Your task to perform on an android device: Show the shopping cart on amazon.com. Image 0: 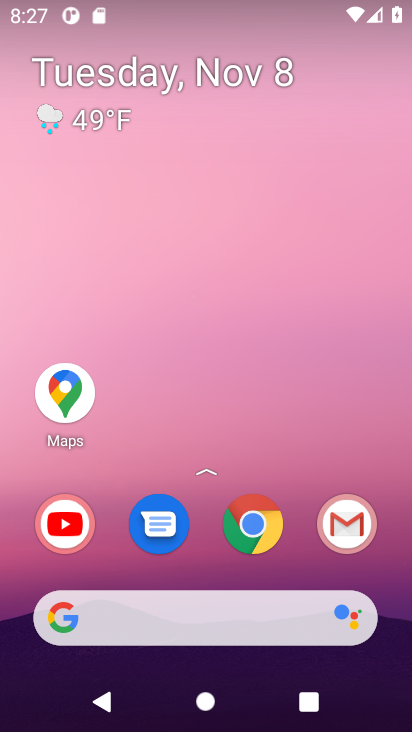
Step 0: click (248, 515)
Your task to perform on an android device: Show the shopping cart on amazon.com. Image 1: 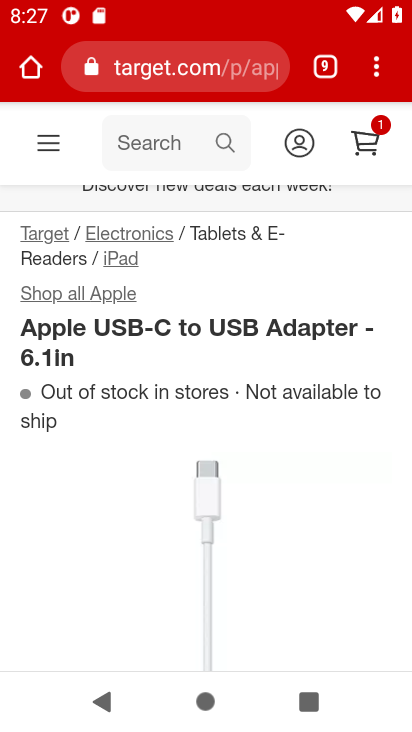
Step 1: click (185, 76)
Your task to perform on an android device: Show the shopping cart on amazon.com. Image 2: 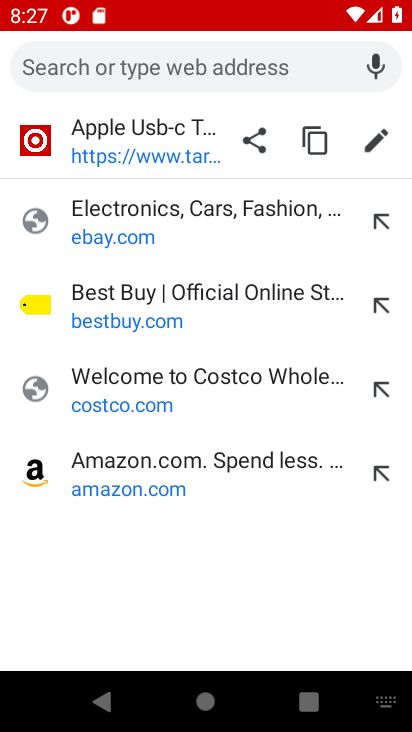
Step 2: click (105, 480)
Your task to perform on an android device: Show the shopping cart on amazon.com. Image 3: 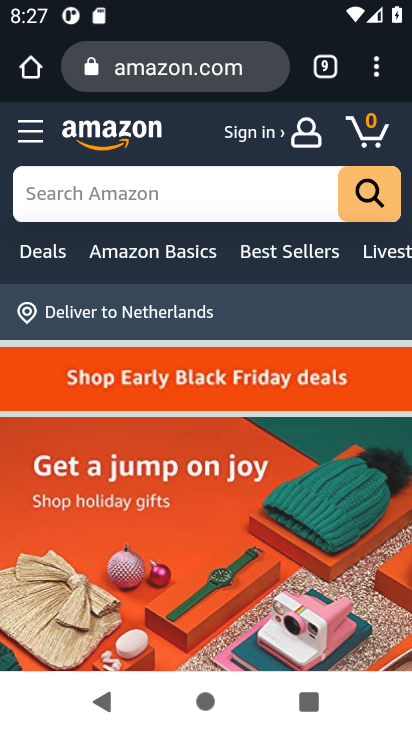
Step 3: click (360, 140)
Your task to perform on an android device: Show the shopping cart on amazon.com. Image 4: 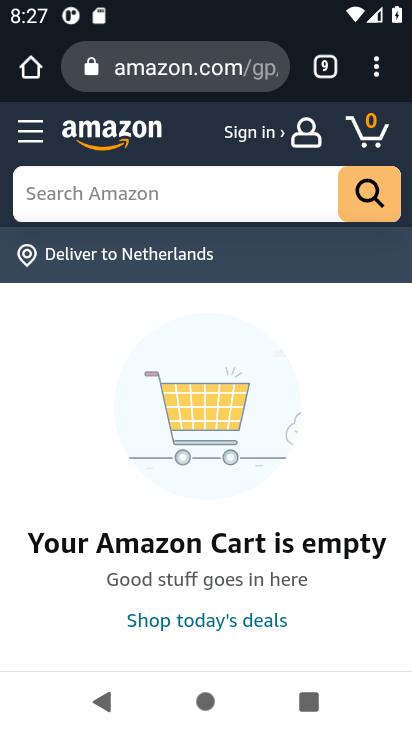
Step 4: task complete